Your task to perform on an android device: create a new album in the google photos Image 0: 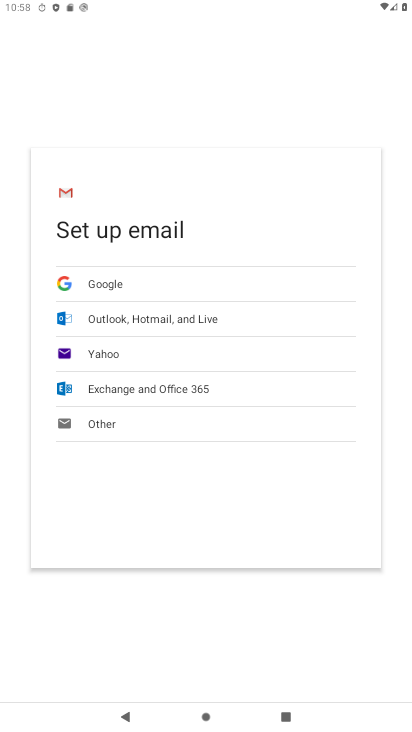
Step 0: press home button
Your task to perform on an android device: create a new album in the google photos Image 1: 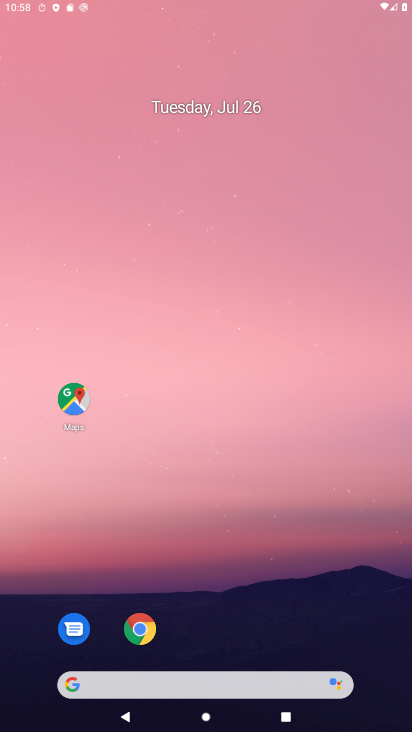
Step 1: drag from (390, 687) to (268, 41)
Your task to perform on an android device: create a new album in the google photos Image 2: 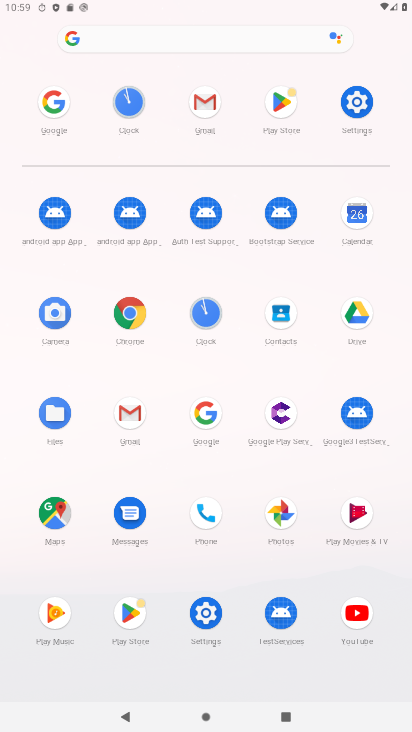
Step 2: click (286, 520)
Your task to perform on an android device: create a new album in the google photos Image 3: 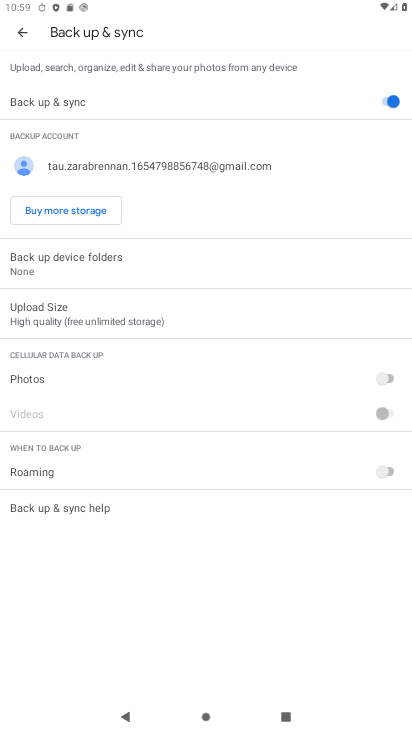
Step 3: task complete